Your task to perform on an android device: Open Android settings Image 0: 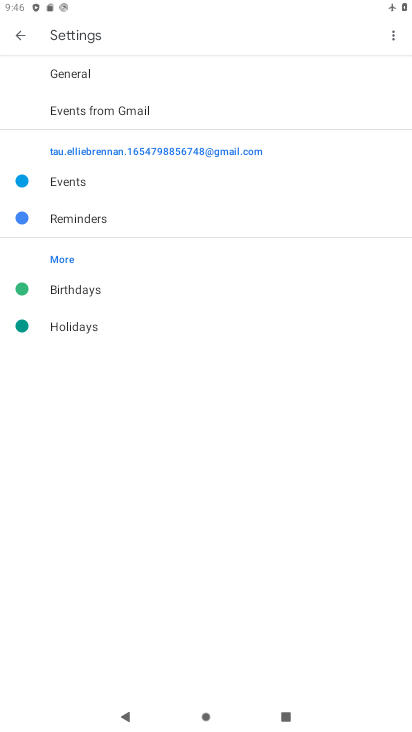
Step 0: press home button
Your task to perform on an android device: Open Android settings Image 1: 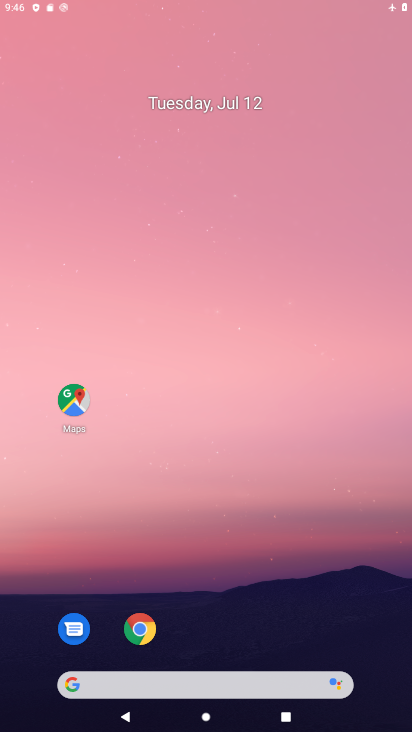
Step 1: drag from (177, 681) to (270, 0)
Your task to perform on an android device: Open Android settings Image 2: 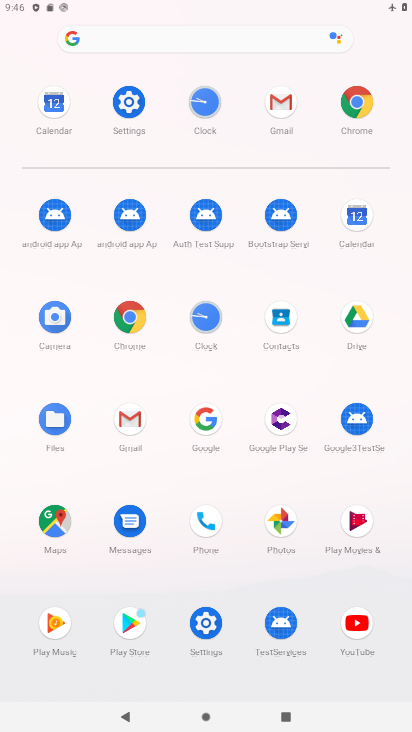
Step 2: click (126, 88)
Your task to perform on an android device: Open Android settings Image 3: 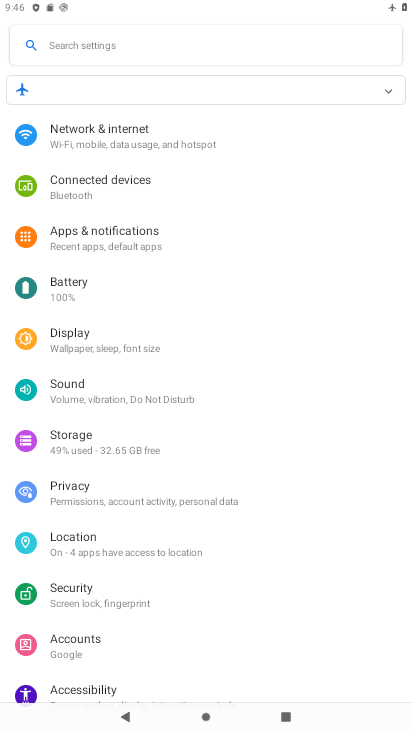
Step 3: drag from (169, 672) to (210, 151)
Your task to perform on an android device: Open Android settings Image 4: 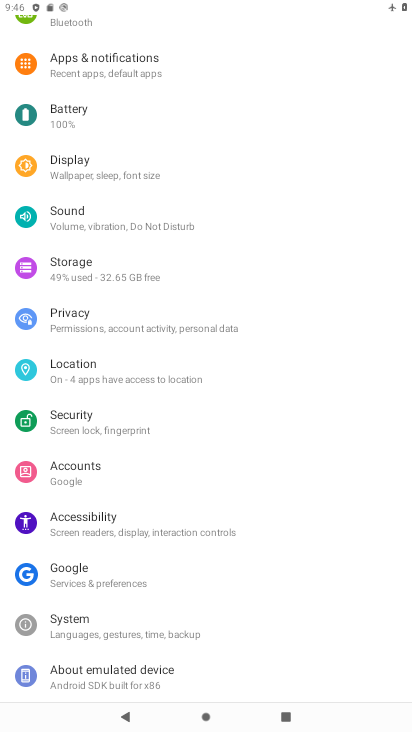
Step 4: click (158, 682)
Your task to perform on an android device: Open Android settings Image 5: 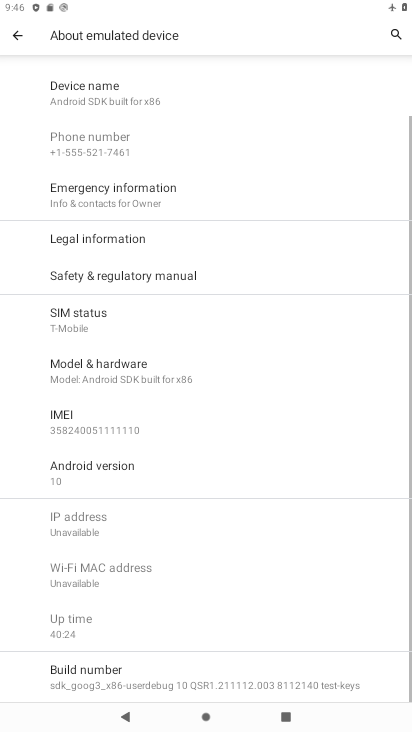
Step 5: click (87, 474)
Your task to perform on an android device: Open Android settings Image 6: 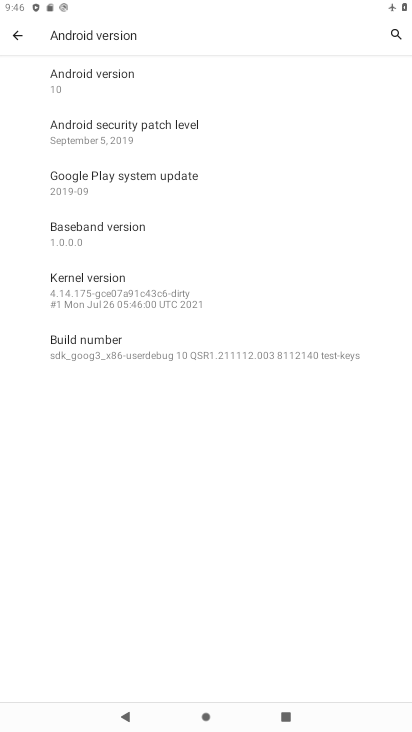
Step 6: task complete